Your task to perform on an android device: turn off javascript in the chrome app Image 0: 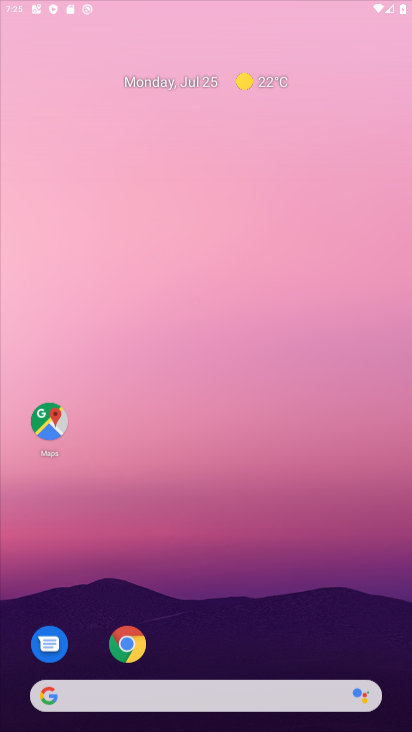
Step 0: press home button
Your task to perform on an android device: turn off javascript in the chrome app Image 1: 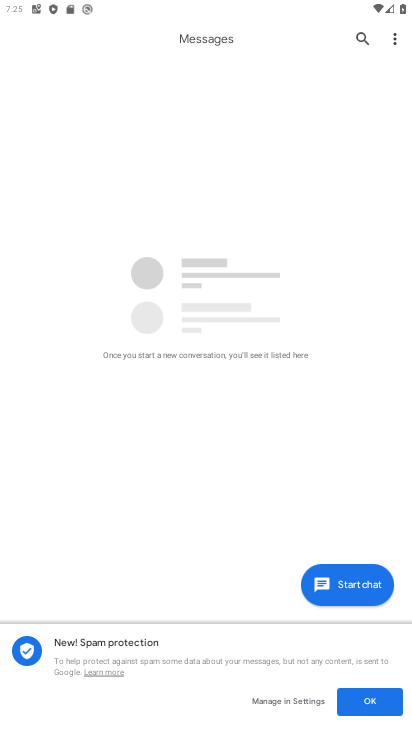
Step 1: drag from (221, 67) to (225, 20)
Your task to perform on an android device: turn off javascript in the chrome app Image 2: 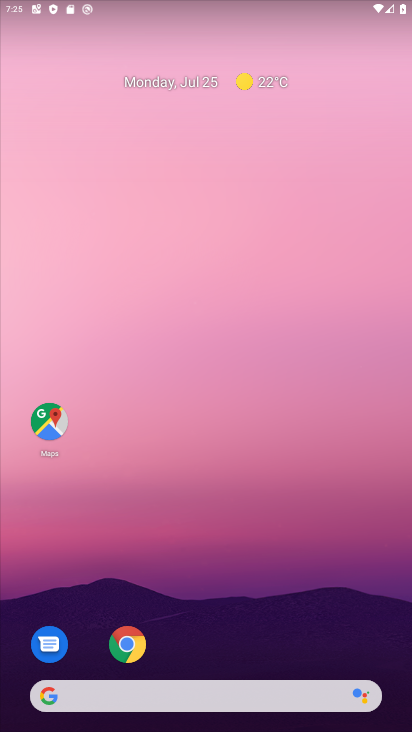
Step 2: drag from (200, 663) to (218, 0)
Your task to perform on an android device: turn off javascript in the chrome app Image 3: 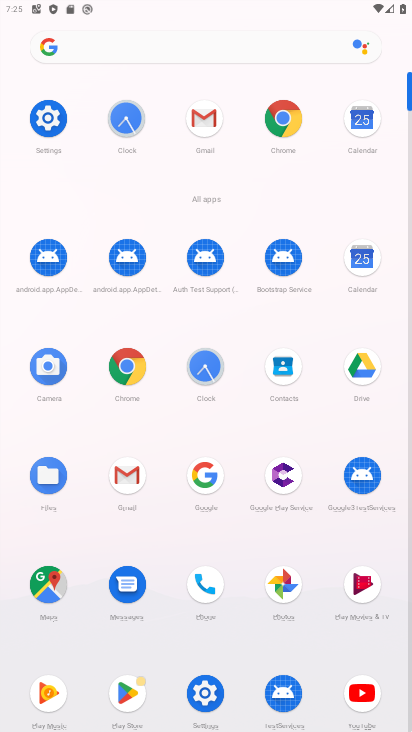
Step 3: click (126, 361)
Your task to perform on an android device: turn off javascript in the chrome app Image 4: 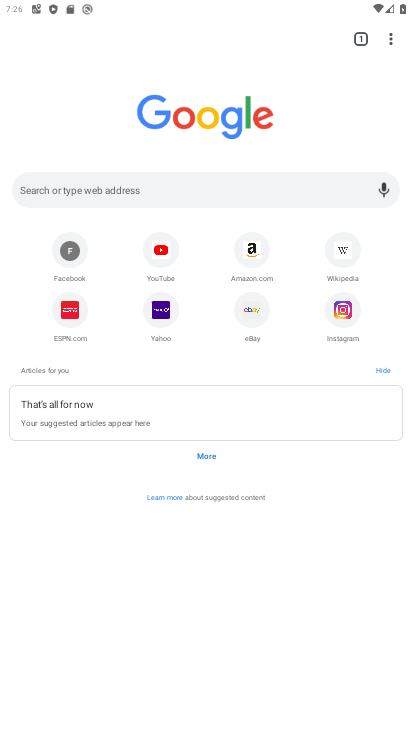
Step 4: click (390, 37)
Your task to perform on an android device: turn off javascript in the chrome app Image 5: 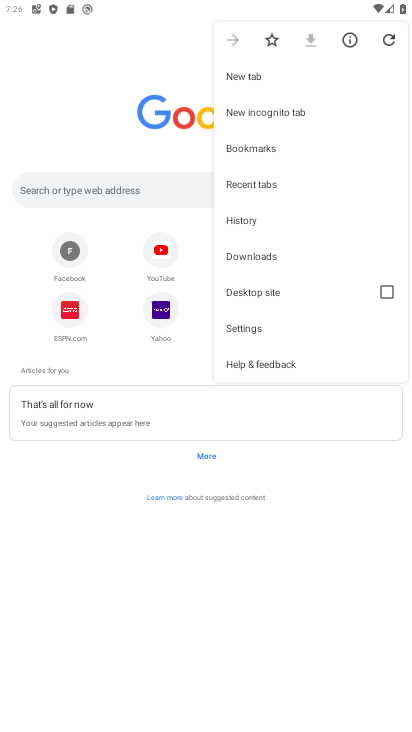
Step 5: click (267, 323)
Your task to perform on an android device: turn off javascript in the chrome app Image 6: 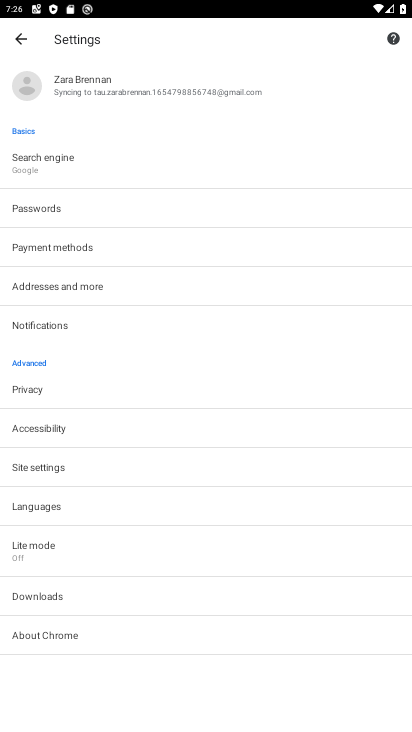
Step 6: click (80, 463)
Your task to perform on an android device: turn off javascript in the chrome app Image 7: 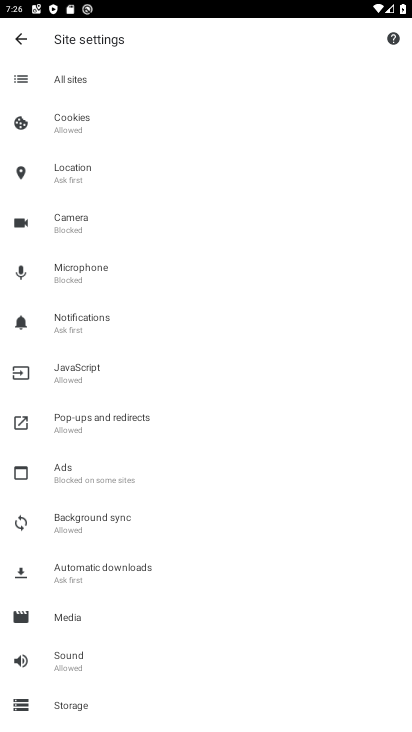
Step 7: click (108, 371)
Your task to perform on an android device: turn off javascript in the chrome app Image 8: 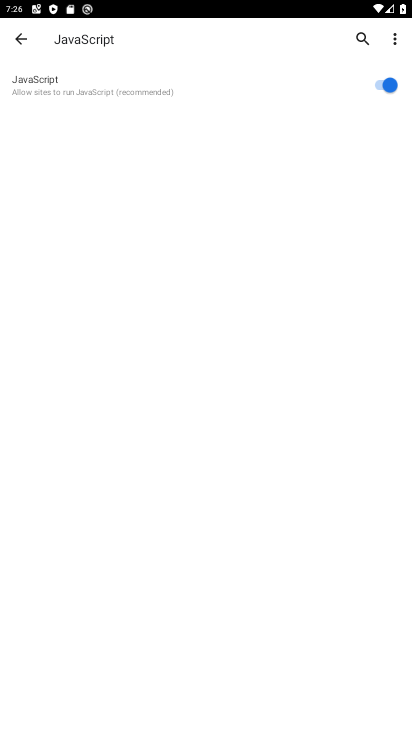
Step 8: click (382, 83)
Your task to perform on an android device: turn off javascript in the chrome app Image 9: 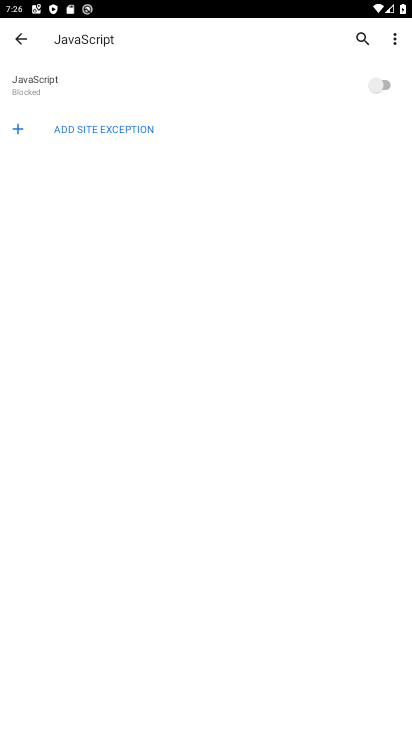
Step 9: task complete